Your task to perform on an android device: find photos in the google photos app Image 0: 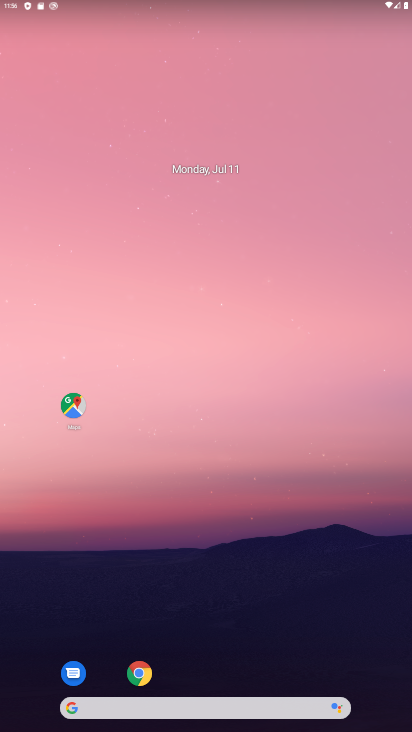
Step 0: drag from (290, 651) to (264, 121)
Your task to perform on an android device: find photos in the google photos app Image 1: 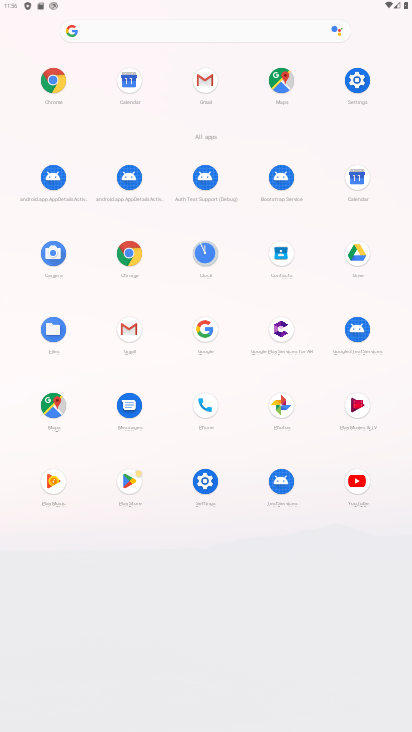
Step 1: click (278, 405)
Your task to perform on an android device: find photos in the google photos app Image 2: 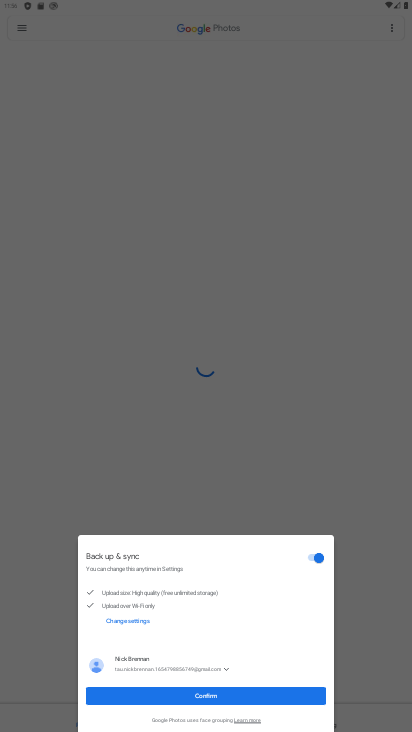
Step 2: click (246, 693)
Your task to perform on an android device: find photos in the google photos app Image 3: 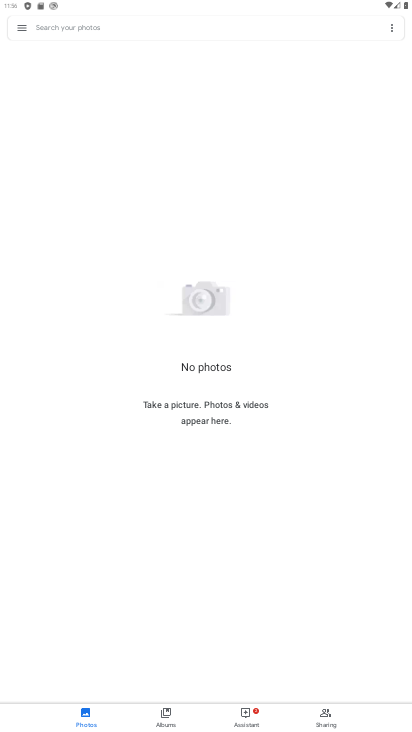
Step 3: task complete